Your task to perform on an android device: uninstall "Cash App" Image 0: 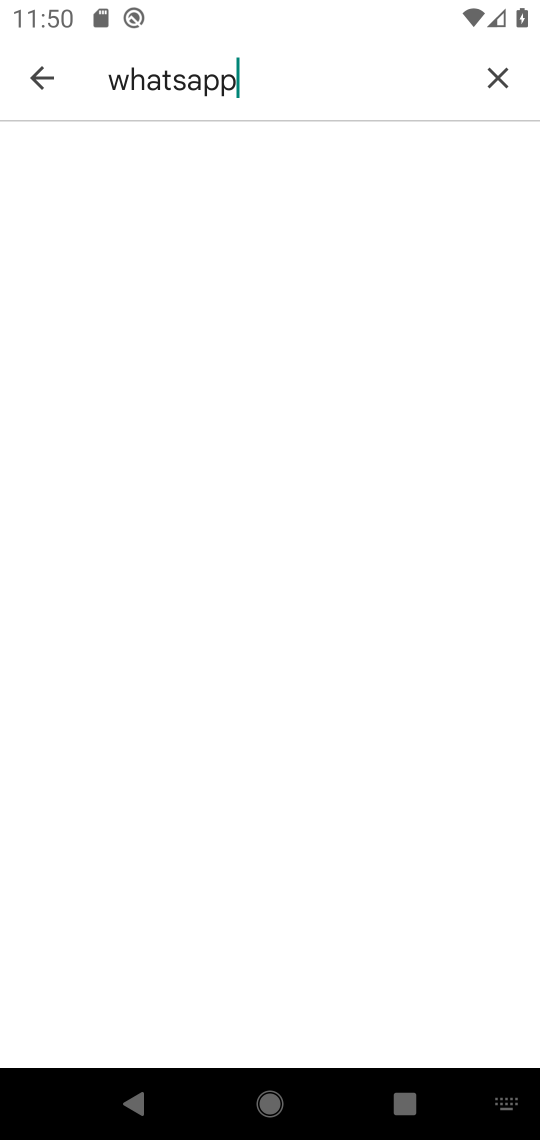
Step 0: task impossible